Your task to perform on an android device: Go to Android settings Image 0: 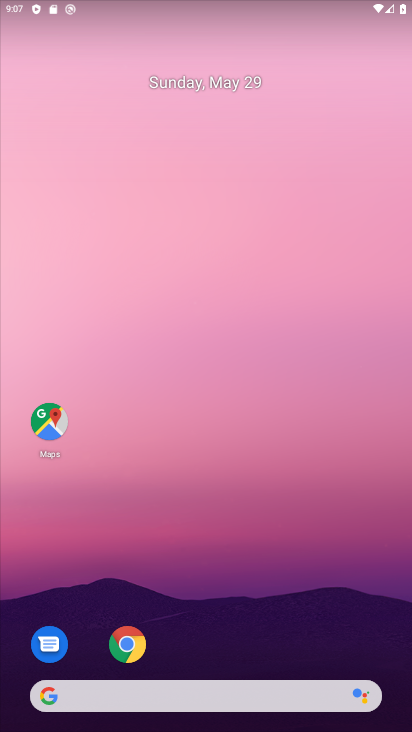
Step 0: drag from (206, 485) to (247, 137)
Your task to perform on an android device: Go to Android settings Image 1: 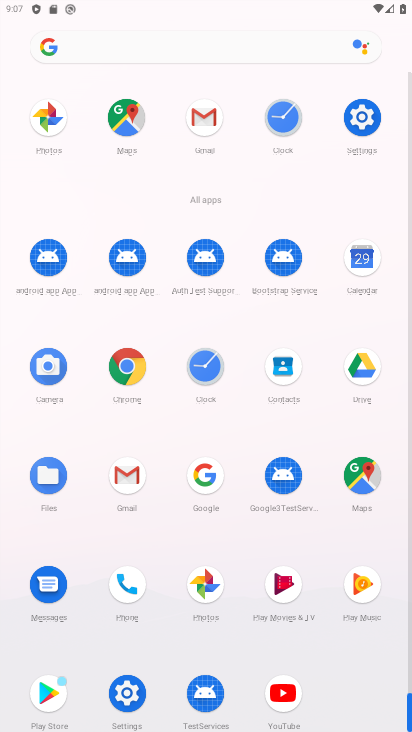
Step 1: click (132, 695)
Your task to perform on an android device: Go to Android settings Image 2: 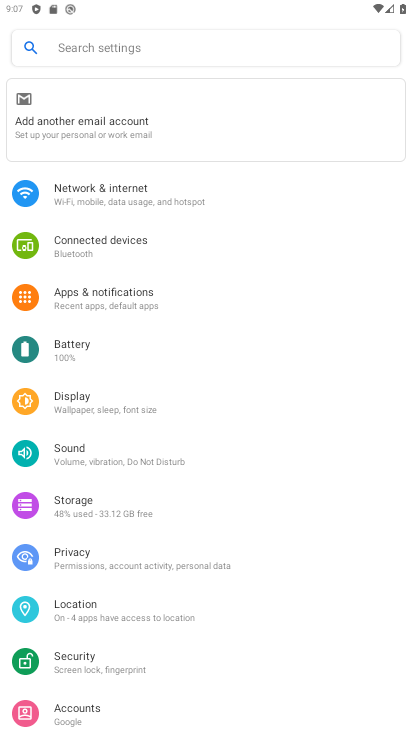
Step 2: task complete